Your task to perform on an android device: Clear the shopping cart on newegg.com. Add logitech g pro to the cart on newegg.com Image 0: 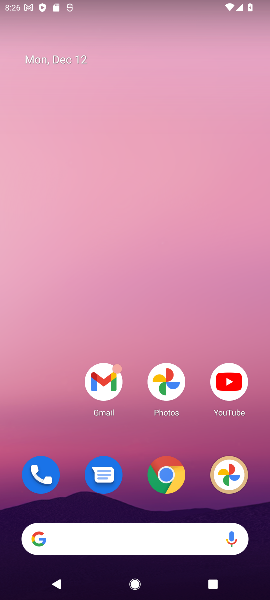
Step 0: click (167, 475)
Your task to perform on an android device: Clear the shopping cart on newegg.com. Add logitech g pro to the cart on newegg.com Image 1: 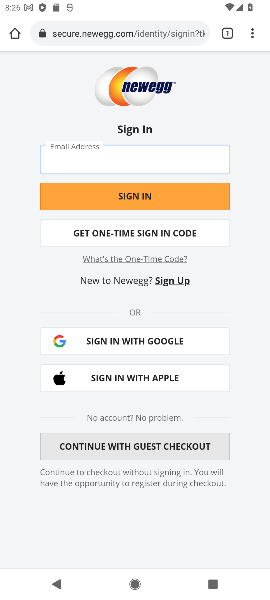
Step 1: press home button
Your task to perform on an android device: Clear the shopping cart on newegg.com. Add logitech g pro to the cart on newegg.com Image 2: 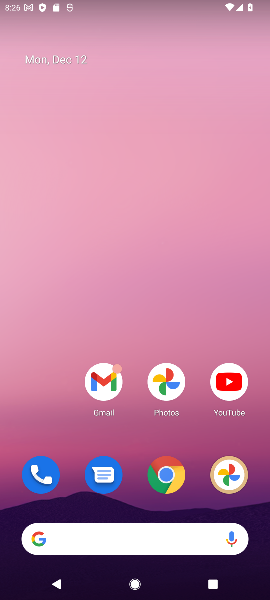
Step 2: click (165, 475)
Your task to perform on an android device: Clear the shopping cart on newegg.com. Add logitech g pro to the cart on newegg.com Image 3: 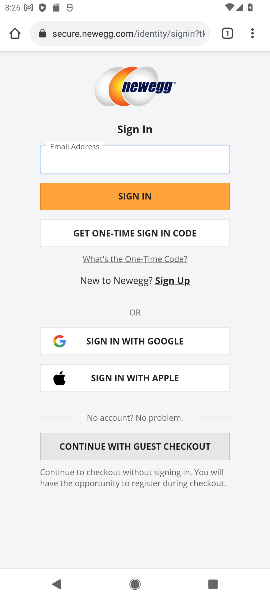
Step 3: click (136, 27)
Your task to perform on an android device: Clear the shopping cart on newegg.com. Add logitech g pro to the cart on newegg.com Image 4: 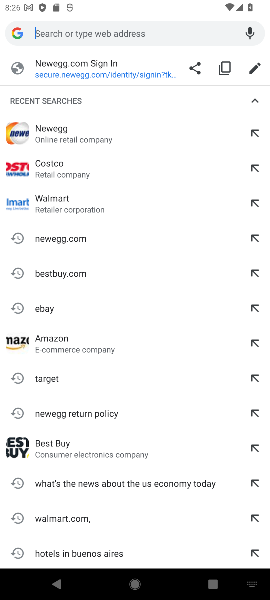
Step 4: type "newegg.com"
Your task to perform on an android device: Clear the shopping cart on newegg.com. Add logitech g pro to the cart on newegg.com Image 5: 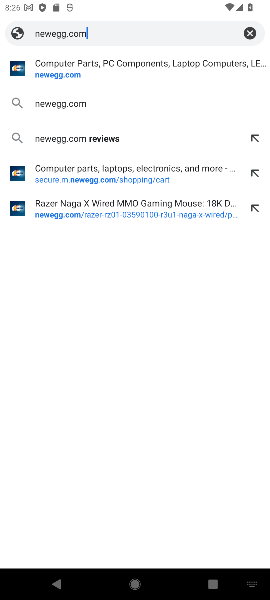
Step 5: click (55, 104)
Your task to perform on an android device: Clear the shopping cart on newegg.com. Add logitech g pro to the cart on newegg.com Image 6: 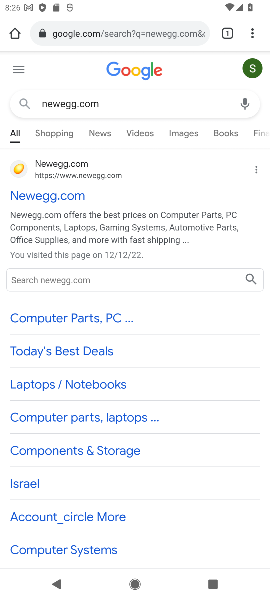
Step 6: click (60, 197)
Your task to perform on an android device: Clear the shopping cart on newegg.com. Add logitech g pro to the cart on newegg.com Image 7: 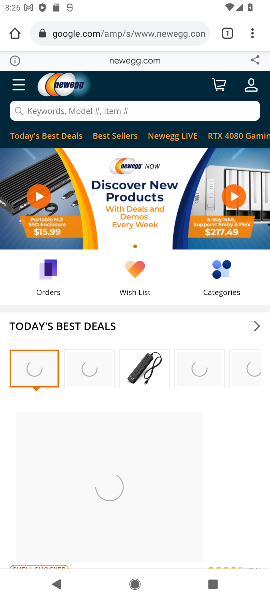
Step 7: click (223, 84)
Your task to perform on an android device: Clear the shopping cart on newegg.com. Add logitech g pro to the cart on newegg.com Image 8: 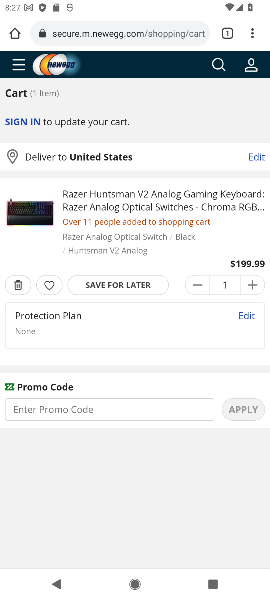
Step 8: click (17, 285)
Your task to perform on an android device: Clear the shopping cart on newegg.com. Add logitech g pro to the cart on newegg.com Image 9: 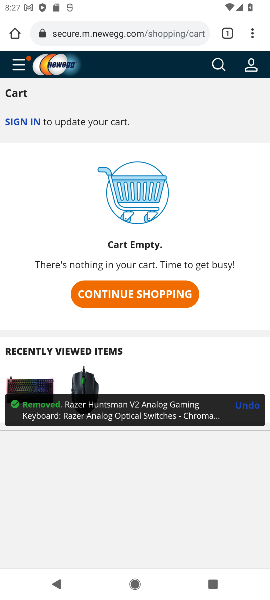
Step 9: click (128, 288)
Your task to perform on an android device: Clear the shopping cart on newegg.com. Add logitech g pro to the cart on newegg.com Image 10: 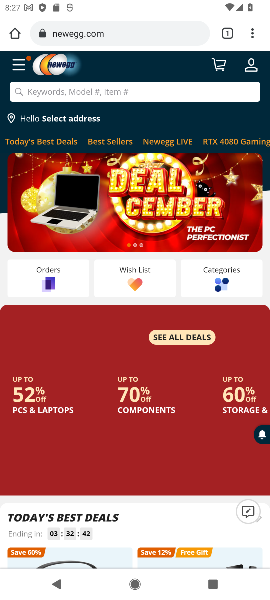
Step 10: click (164, 93)
Your task to perform on an android device: Clear the shopping cart on newegg.com. Add logitech g pro to the cart on newegg.com Image 11: 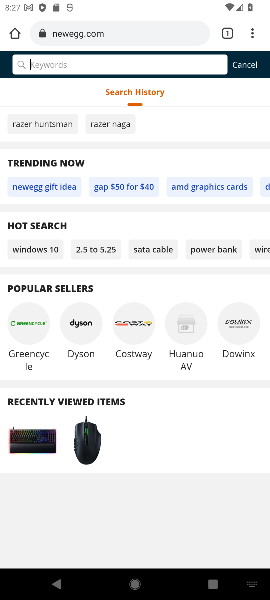
Step 11: type "logitech g pro"
Your task to perform on an android device: Clear the shopping cart on newegg.com. Add logitech g pro to the cart on newegg.com Image 12: 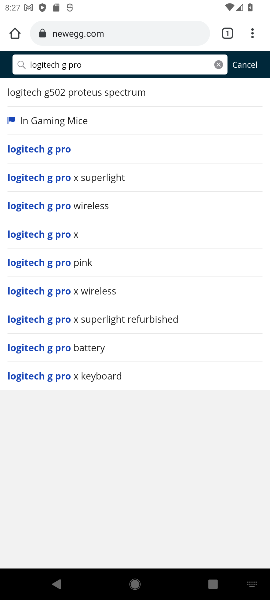
Step 12: click (58, 149)
Your task to perform on an android device: Clear the shopping cart on newegg.com. Add logitech g pro to the cart on newegg.com Image 13: 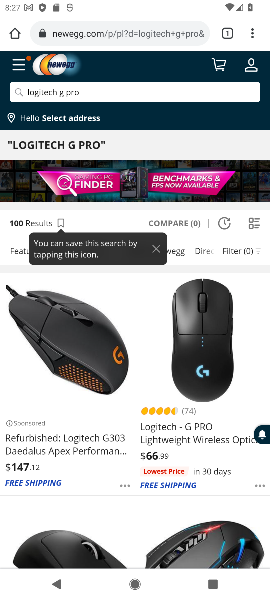
Step 13: click (85, 447)
Your task to perform on an android device: Clear the shopping cart on newegg.com. Add logitech g pro to the cart on newegg.com Image 14: 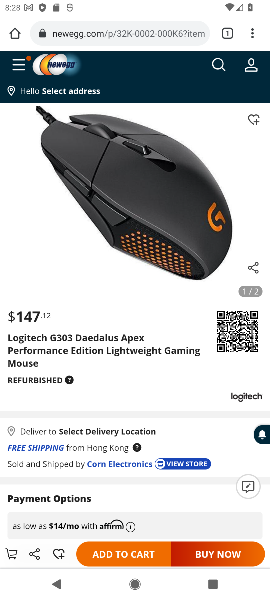
Step 14: click (120, 551)
Your task to perform on an android device: Clear the shopping cart on newegg.com. Add logitech g pro to the cart on newegg.com Image 15: 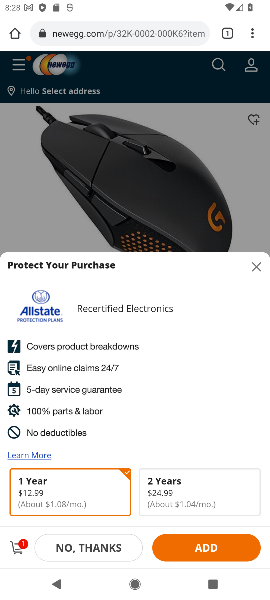
Step 15: task complete